Your task to perform on an android device: open a bookmark in the chrome app Image 0: 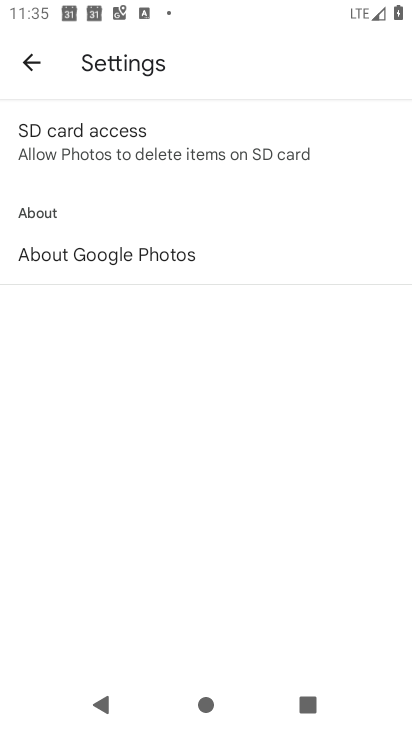
Step 0: press home button
Your task to perform on an android device: open a bookmark in the chrome app Image 1: 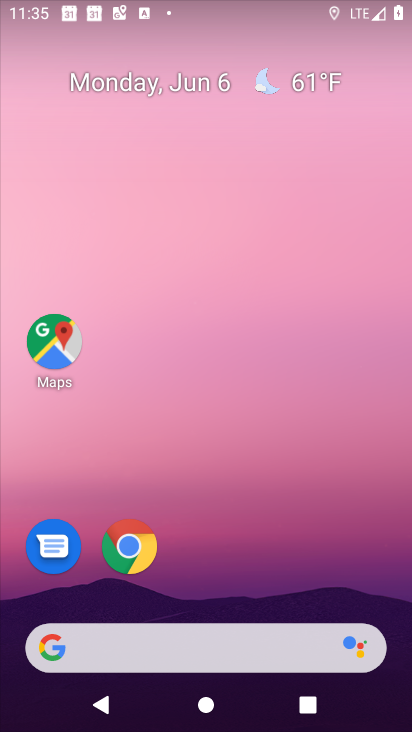
Step 1: click (134, 550)
Your task to perform on an android device: open a bookmark in the chrome app Image 2: 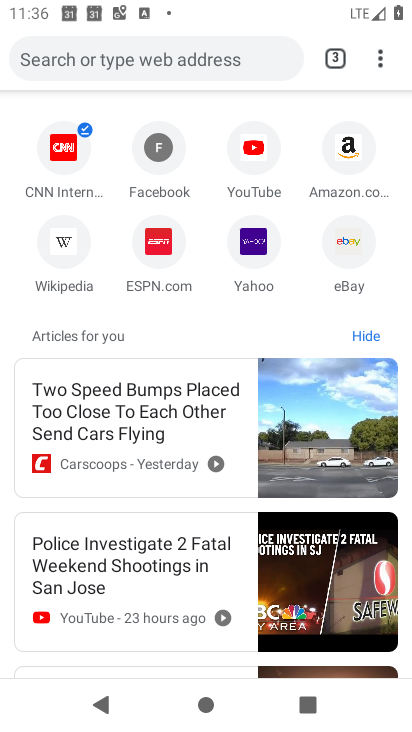
Step 2: click (381, 62)
Your task to perform on an android device: open a bookmark in the chrome app Image 3: 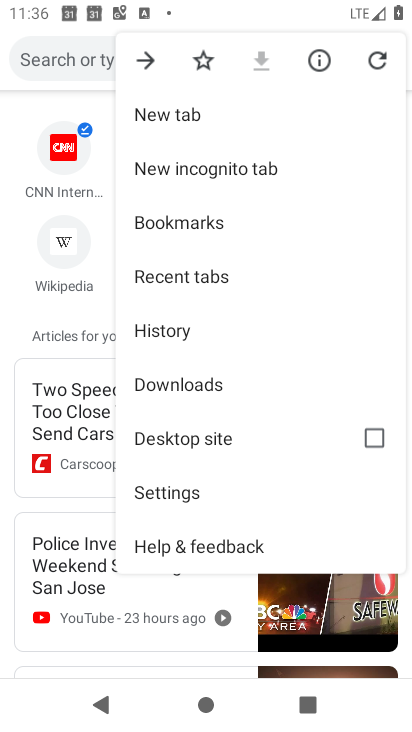
Step 3: click (180, 221)
Your task to perform on an android device: open a bookmark in the chrome app Image 4: 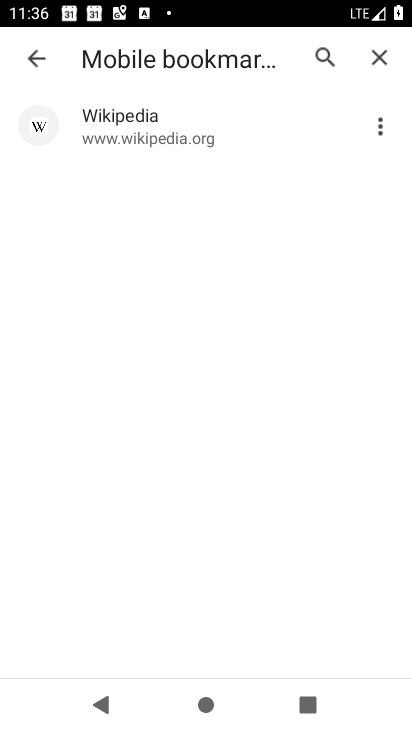
Step 4: task complete